Your task to perform on an android device: find snoozed emails in the gmail app Image 0: 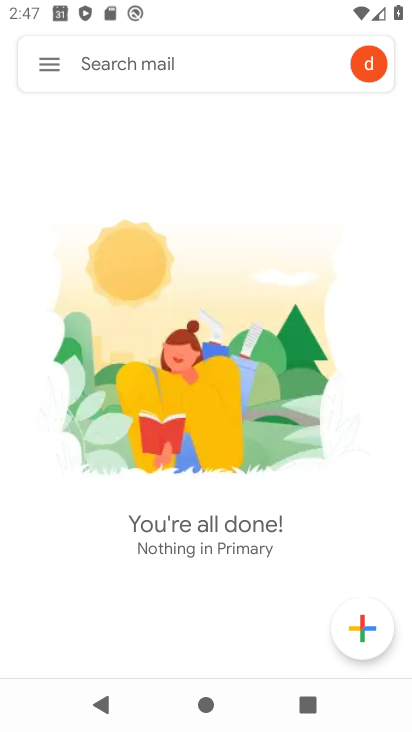
Step 0: press home button
Your task to perform on an android device: find snoozed emails in the gmail app Image 1: 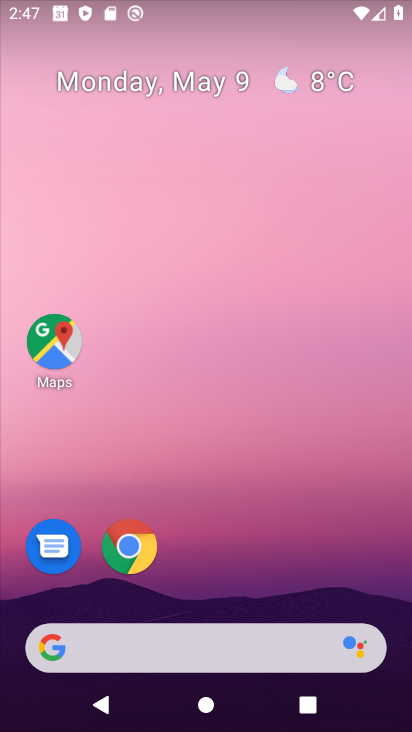
Step 1: drag from (208, 519) to (280, 4)
Your task to perform on an android device: find snoozed emails in the gmail app Image 2: 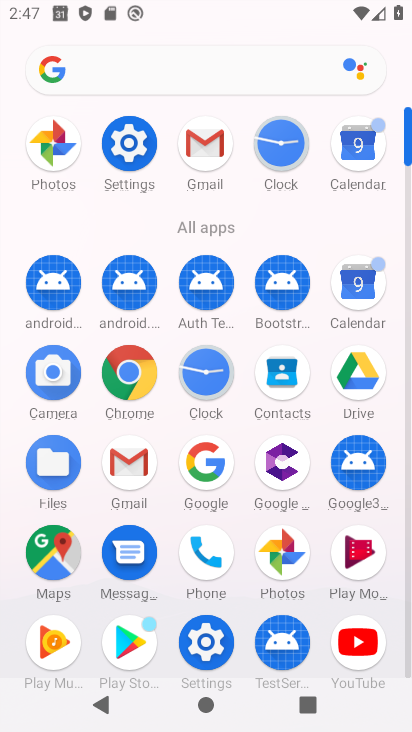
Step 2: click (210, 147)
Your task to perform on an android device: find snoozed emails in the gmail app Image 3: 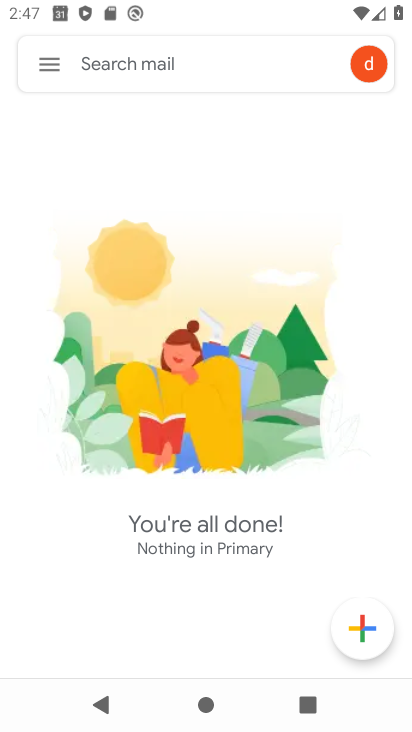
Step 3: click (44, 58)
Your task to perform on an android device: find snoozed emails in the gmail app Image 4: 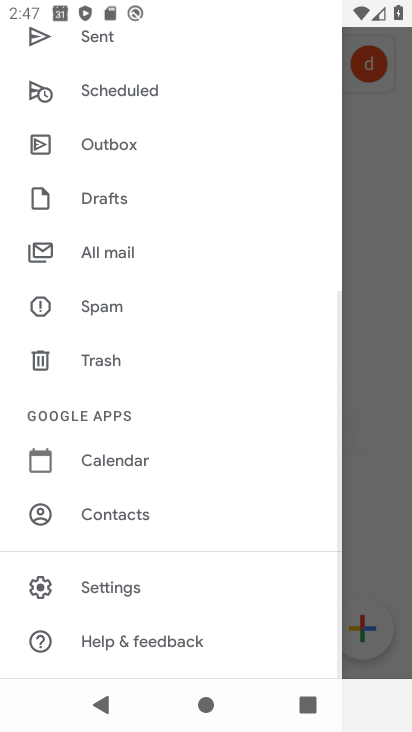
Step 4: drag from (198, 183) to (263, 616)
Your task to perform on an android device: find snoozed emails in the gmail app Image 5: 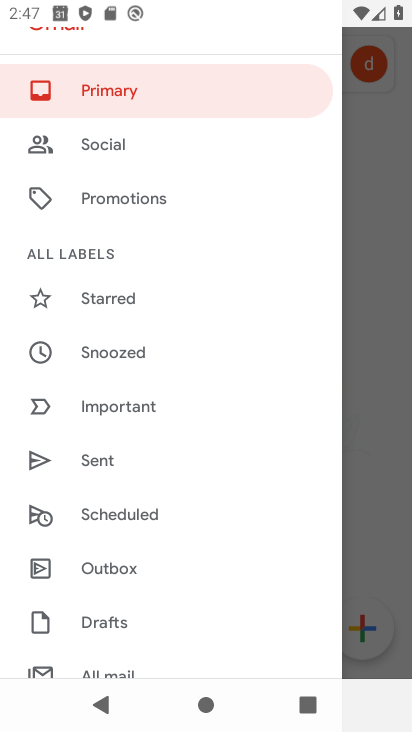
Step 5: click (136, 343)
Your task to perform on an android device: find snoozed emails in the gmail app Image 6: 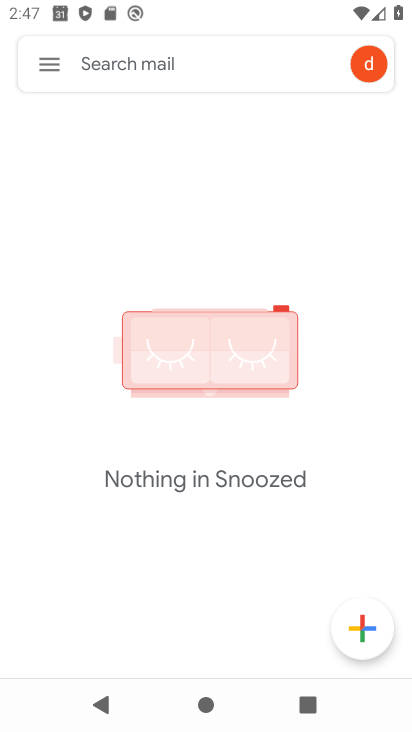
Step 6: task complete